Your task to perform on an android device: Open Reddit.com Image 0: 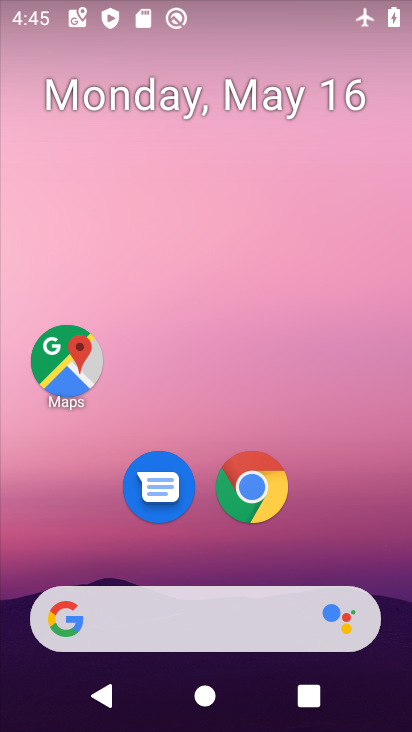
Step 0: click (254, 486)
Your task to perform on an android device: Open Reddit.com Image 1: 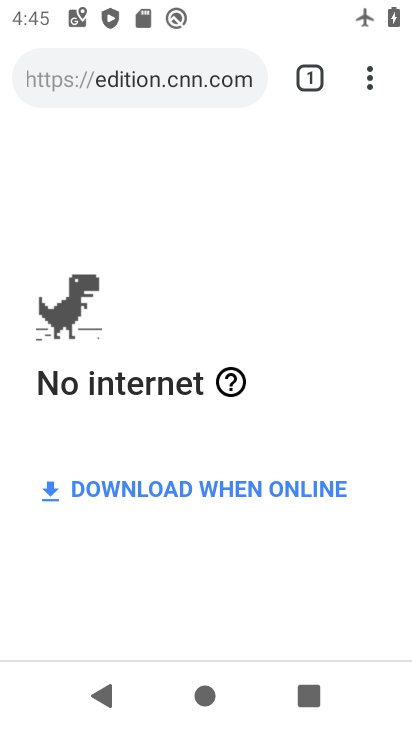
Step 1: click (161, 69)
Your task to perform on an android device: Open Reddit.com Image 2: 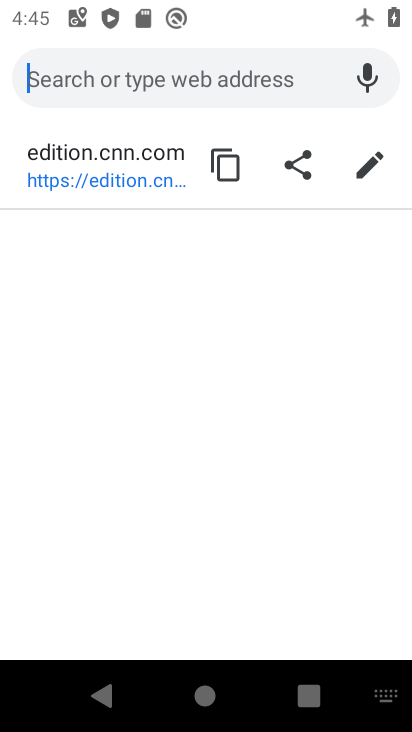
Step 2: type "reddit.com"
Your task to perform on an android device: Open Reddit.com Image 3: 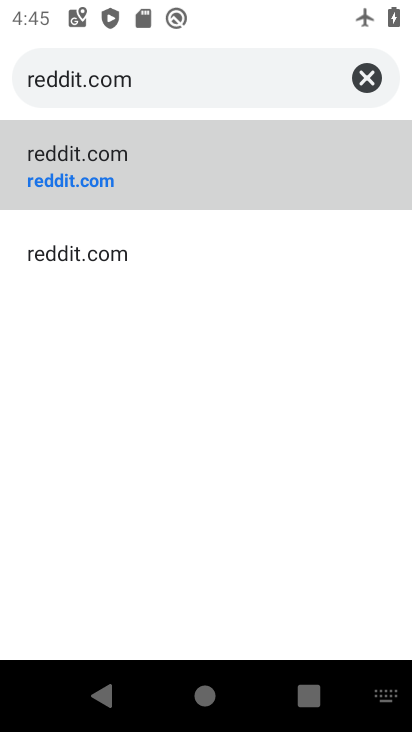
Step 3: click (69, 157)
Your task to perform on an android device: Open Reddit.com Image 4: 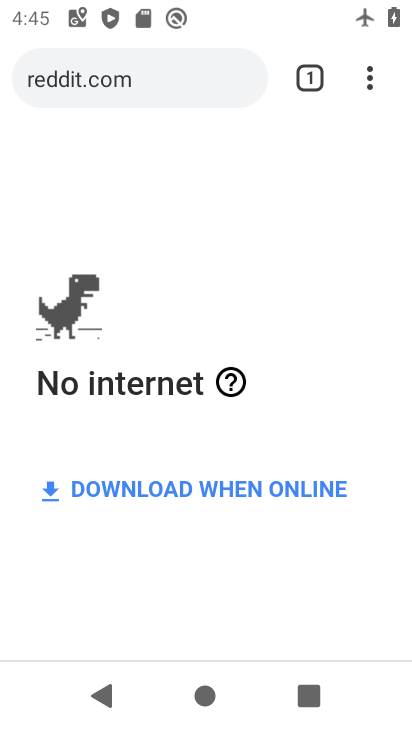
Step 4: task complete